Your task to perform on an android device: toggle javascript in the chrome app Image 0: 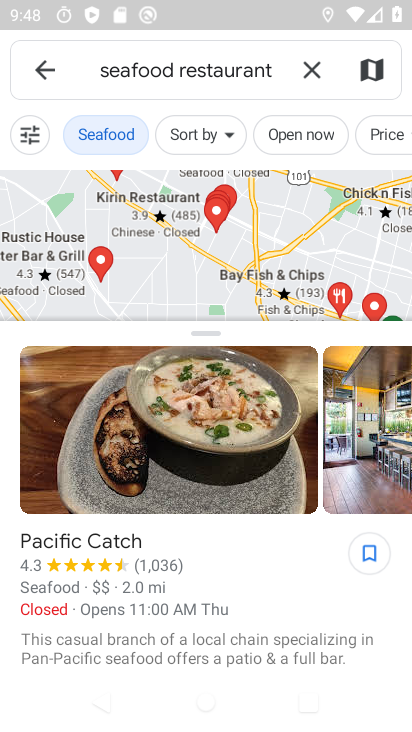
Step 0: press home button
Your task to perform on an android device: toggle javascript in the chrome app Image 1: 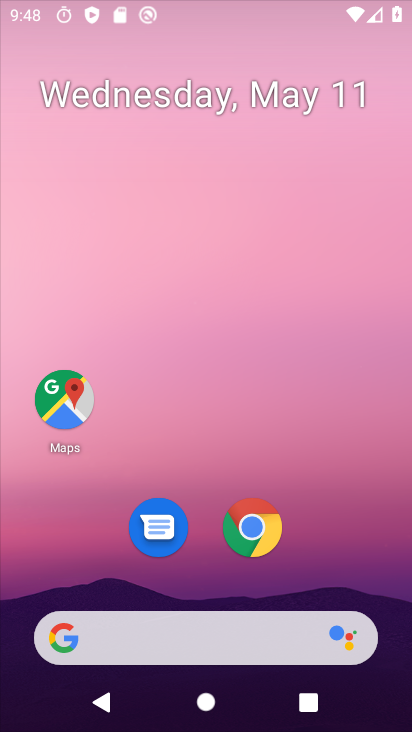
Step 1: drag from (212, 606) to (204, 170)
Your task to perform on an android device: toggle javascript in the chrome app Image 2: 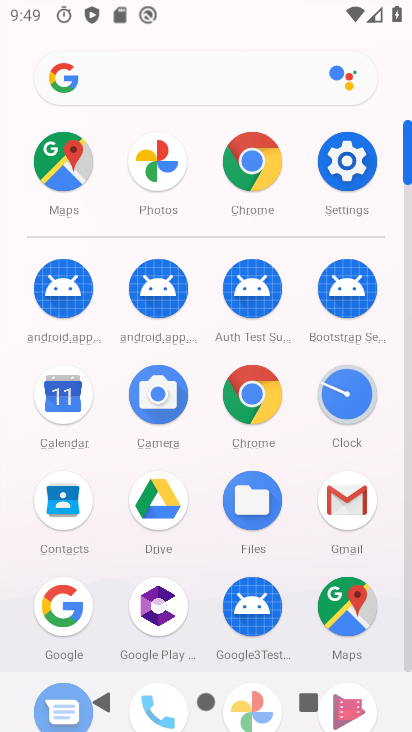
Step 2: click (251, 175)
Your task to perform on an android device: toggle javascript in the chrome app Image 3: 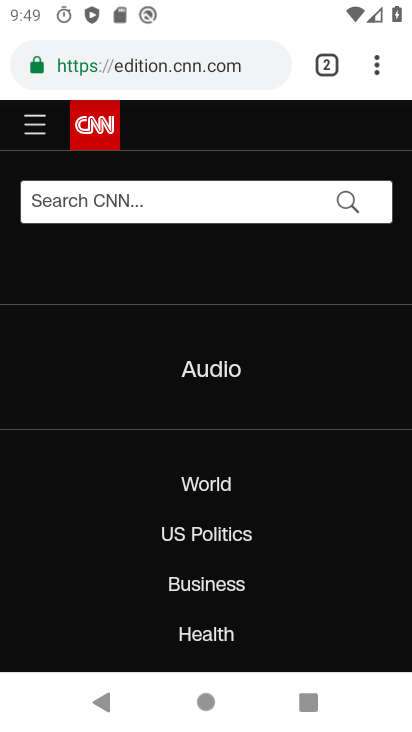
Step 3: click (376, 72)
Your task to perform on an android device: toggle javascript in the chrome app Image 4: 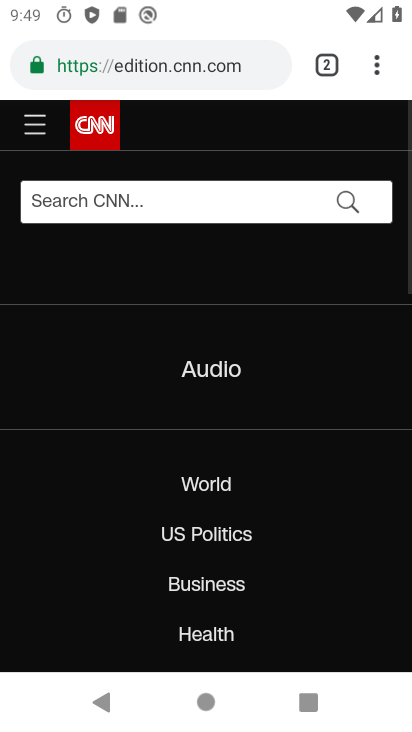
Step 4: click (377, 78)
Your task to perform on an android device: toggle javascript in the chrome app Image 5: 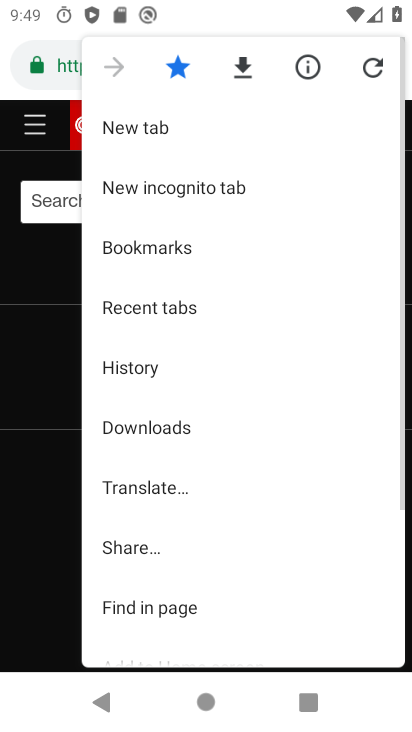
Step 5: drag from (257, 566) to (283, 364)
Your task to perform on an android device: toggle javascript in the chrome app Image 6: 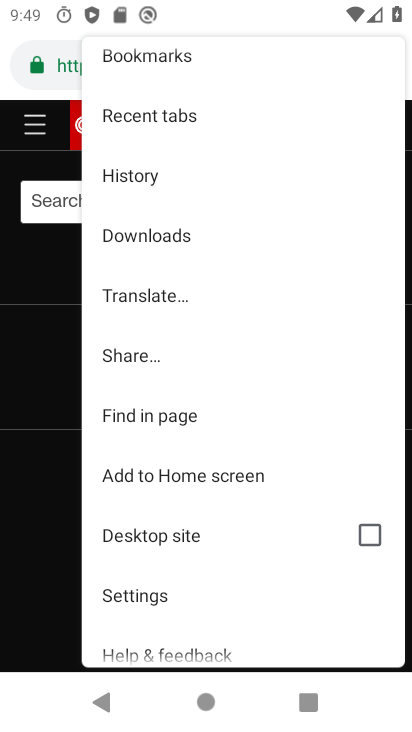
Step 6: click (205, 599)
Your task to perform on an android device: toggle javascript in the chrome app Image 7: 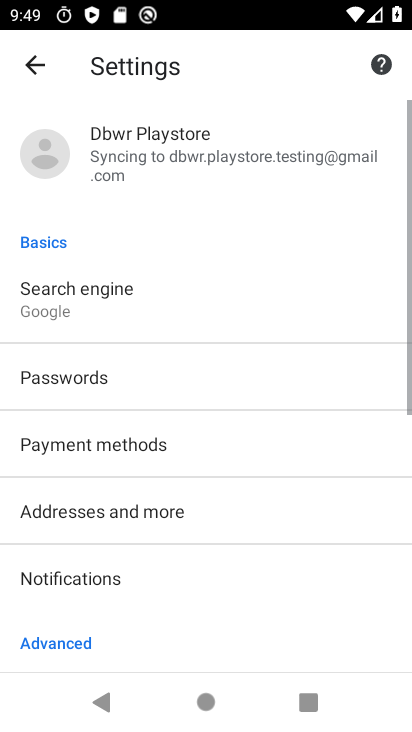
Step 7: drag from (189, 492) to (199, 217)
Your task to perform on an android device: toggle javascript in the chrome app Image 8: 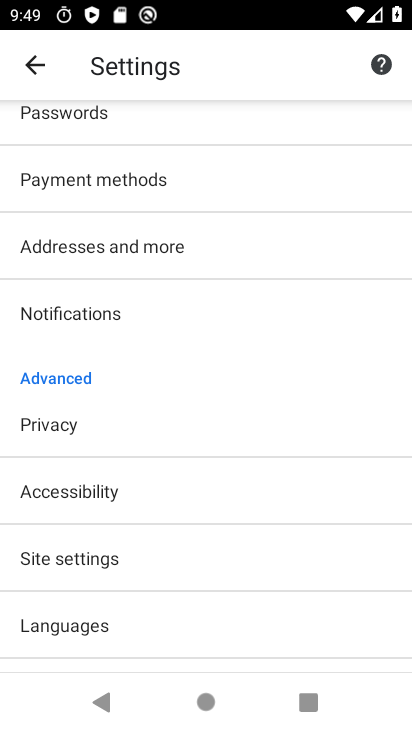
Step 8: click (135, 571)
Your task to perform on an android device: toggle javascript in the chrome app Image 9: 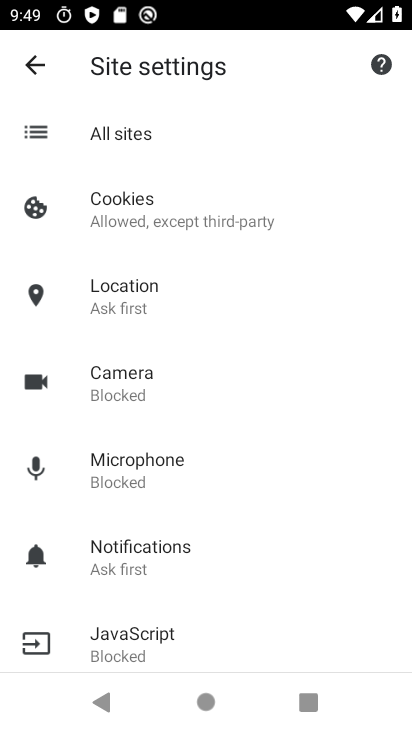
Step 9: click (181, 643)
Your task to perform on an android device: toggle javascript in the chrome app Image 10: 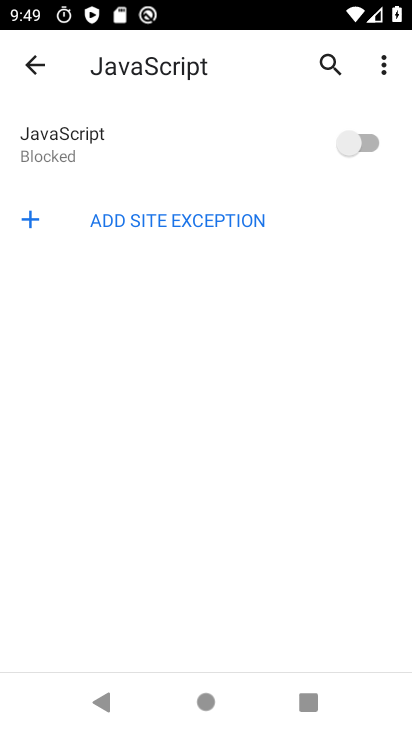
Step 10: click (353, 150)
Your task to perform on an android device: toggle javascript in the chrome app Image 11: 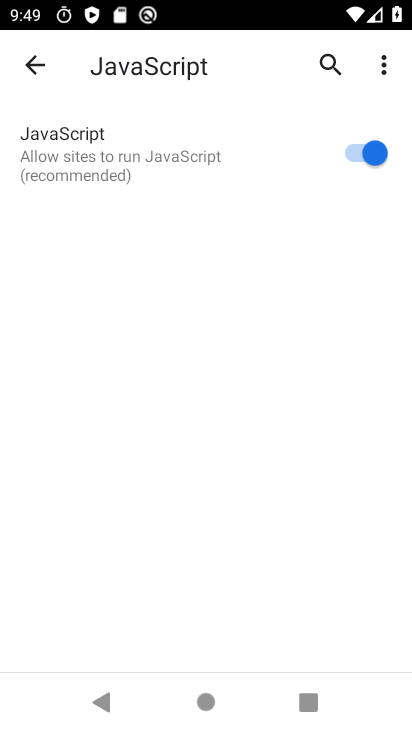
Step 11: task complete